Your task to perform on an android device: toggle location history Image 0: 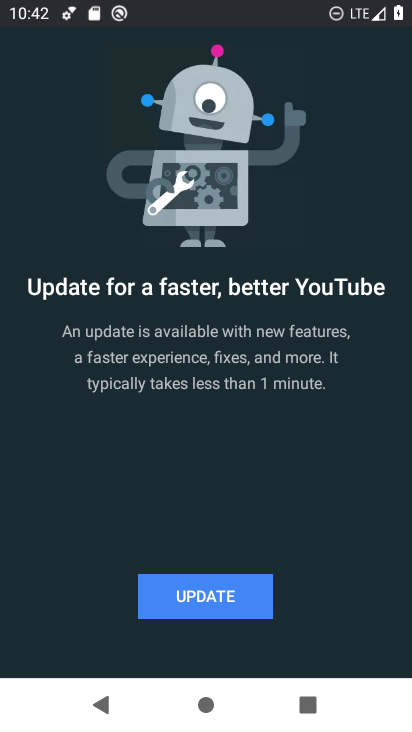
Step 0: press home button
Your task to perform on an android device: toggle location history Image 1: 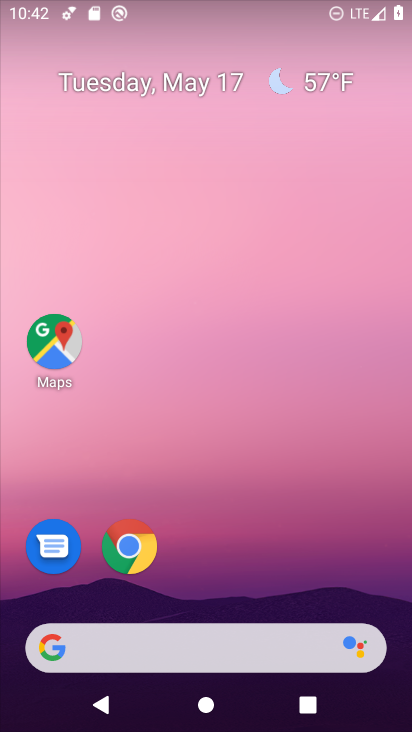
Step 1: click (55, 340)
Your task to perform on an android device: toggle location history Image 2: 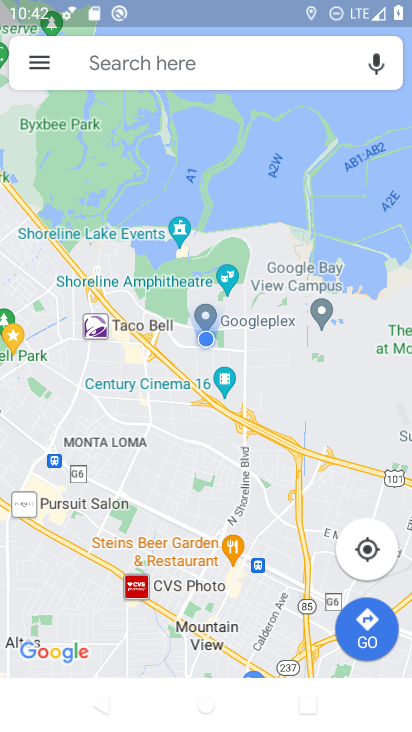
Step 2: click (37, 62)
Your task to perform on an android device: toggle location history Image 3: 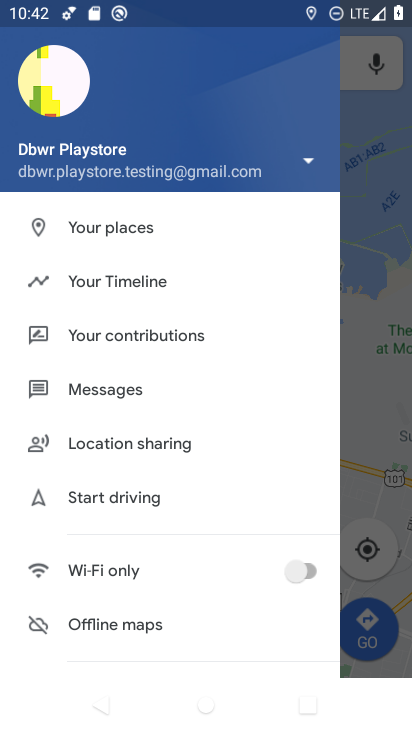
Step 3: click (108, 277)
Your task to perform on an android device: toggle location history Image 4: 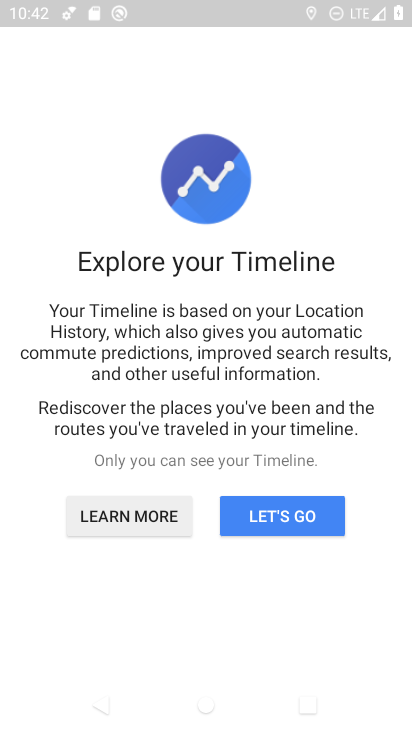
Step 4: click (269, 521)
Your task to perform on an android device: toggle location history Image 5: 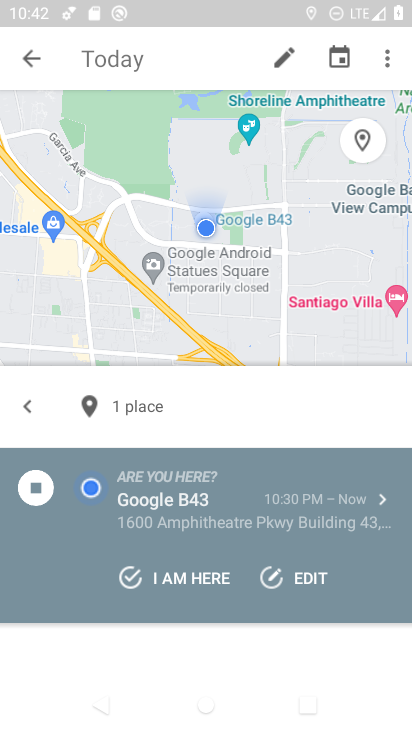
Step 5: click (391, 57)
Your task to perform on an android device: toggle location history Image 6: 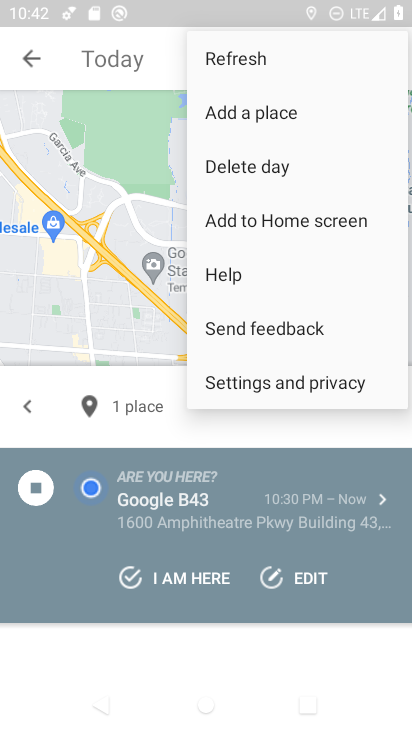
Step 6: click (246, 386)
Your task to perform on an android device: toggle location history Image 7: 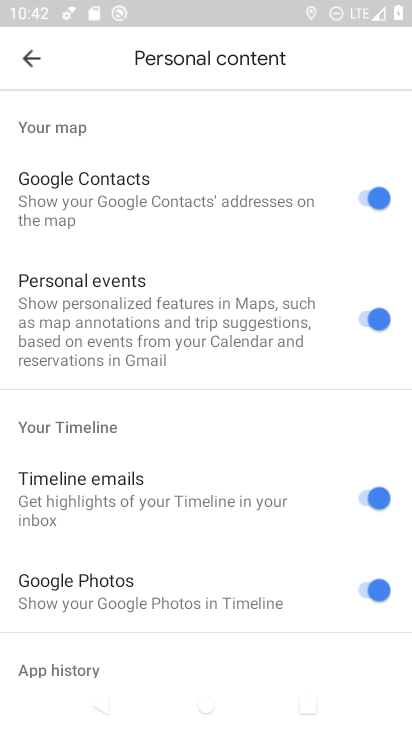
Step 7: drag from (130, 526) to (151, 120)
Your task to perform on an android device: toggle location history Image 8: 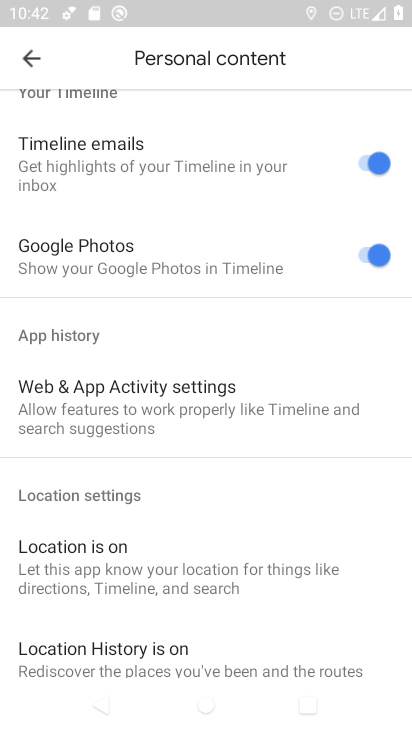
Step 8: drag from (168, 595) to (195, 269)
Your task to perform on an android device: toggle location history Image 9: 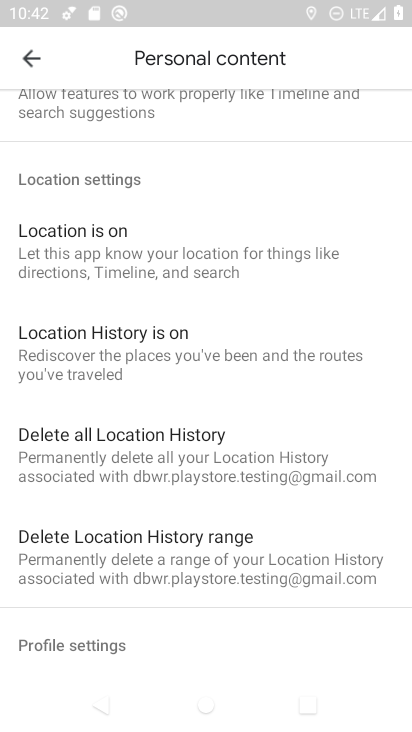
Step 9: click (101, 357)
Your task to perform on an android device: toggle location history Image 10: 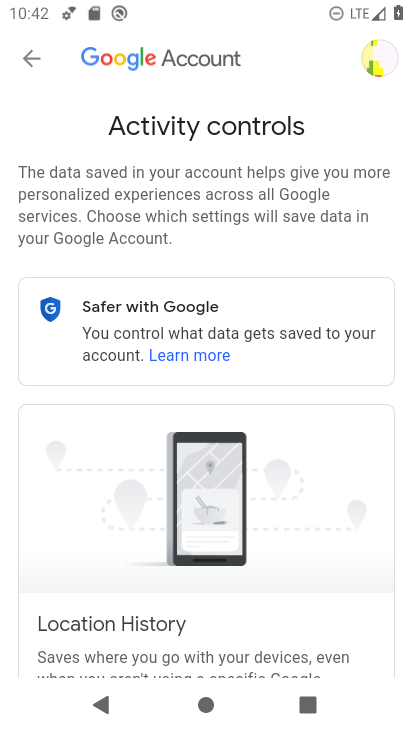
Step 10: drag from (188, 522) to (192, 198)
Your task to perform on an android device: toggle location history Image 11: 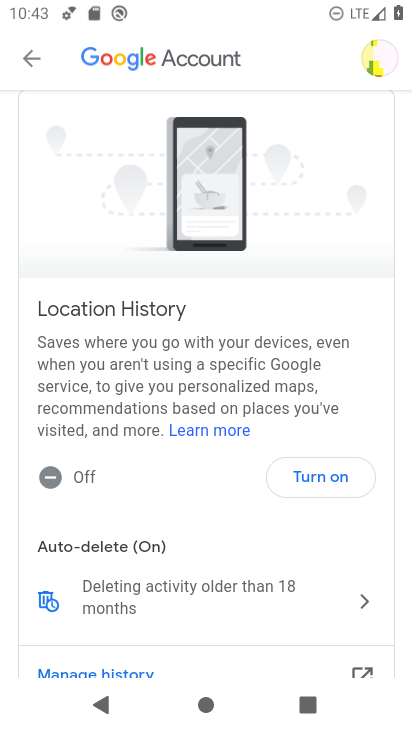
Step 11: click (319, 479)
Your task to perform on an android device: toggle location history Image 12: 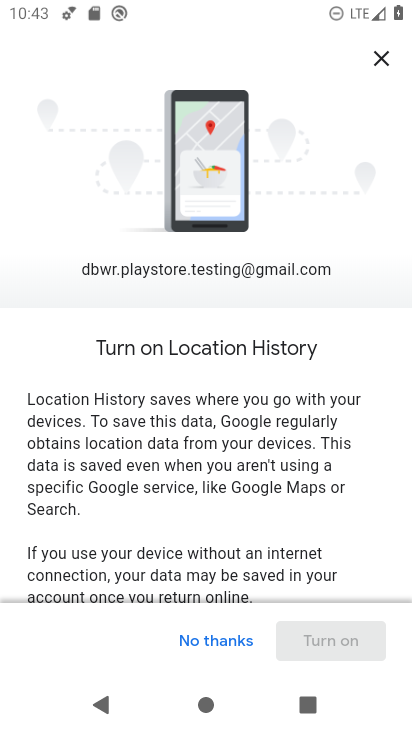
Step 12: drag from (204, 542) to (200, 185)
Your task to perform on an android device: toggle location history Image 13: 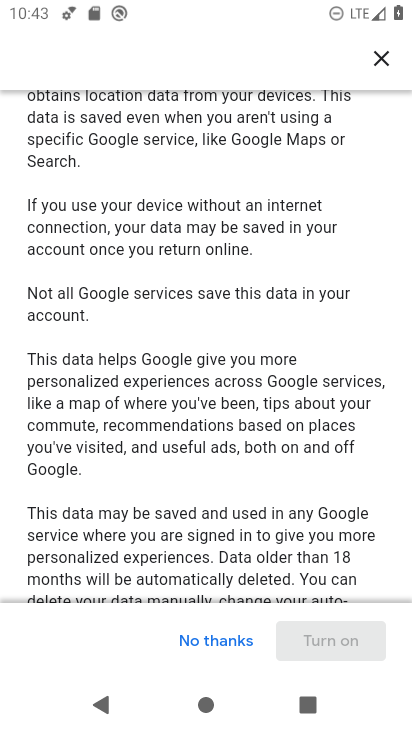
Step 13: drag from (173, 471) to (177, 103)
Your task to perform on an android device: toggle location history Image 14: 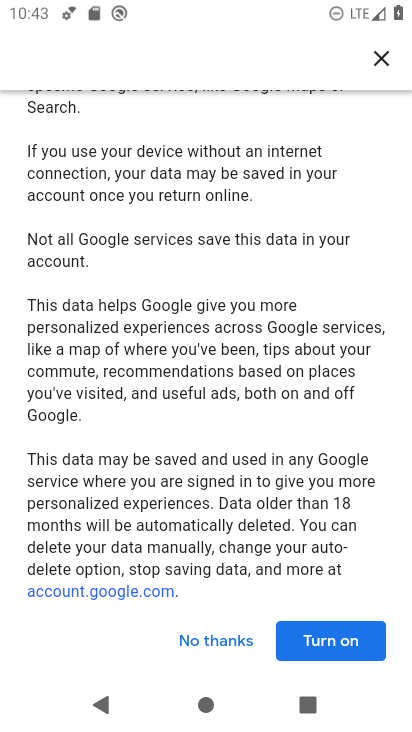
Step 14: click (329, 649)
Your task to perform on an android device: toggle location history Image 15: 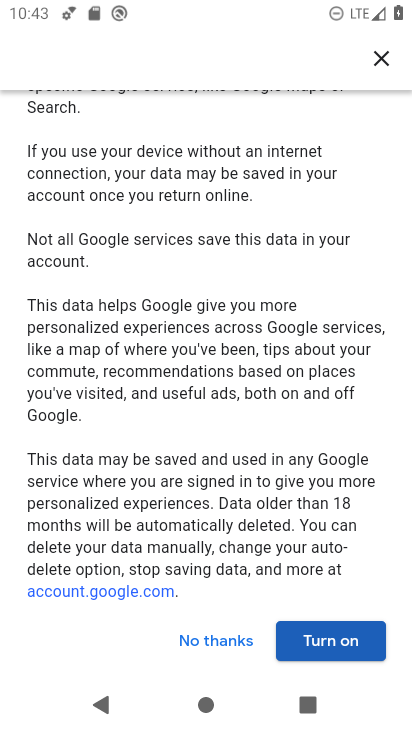
Step 15: click (332, 644)
Your task to perform on an android device: toggle location history Image 16: 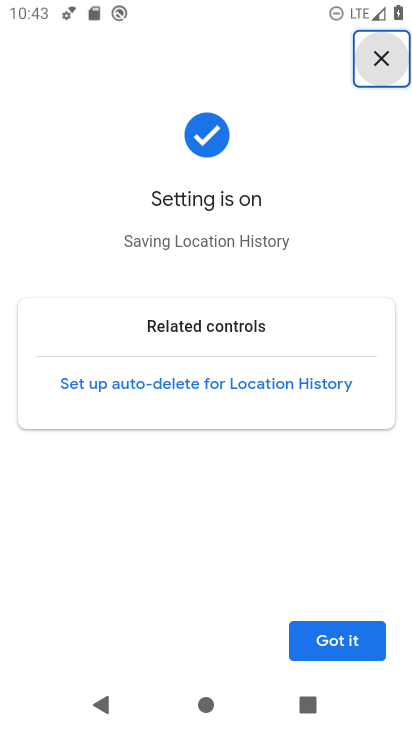
Step 16: click (332, 644)
Your task to perform on an android device: toggle location history Image 17: 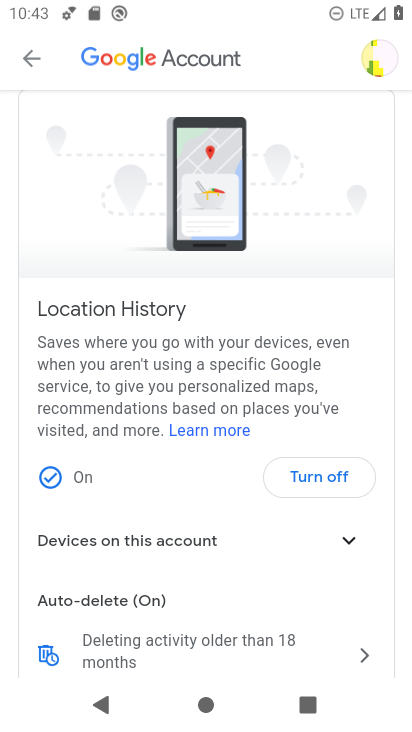
Step 17: task complete